Your task to perform on an android device: Go to calendar. Show me events next week Image 0: 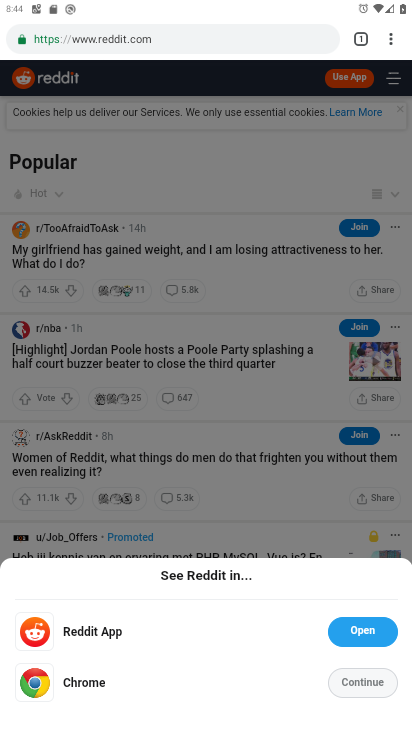
Step 0: press home button
Your task to perform on an android device: Go to calendar. Show me events next week Image 1: 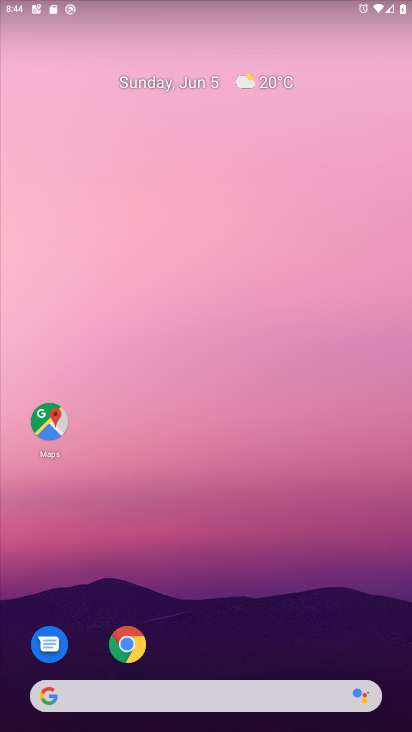
Step 1: drag from (330, 590) to (268, 210)
Your task to perform on an android device: Go to calendar. Show me events next week Image 2: 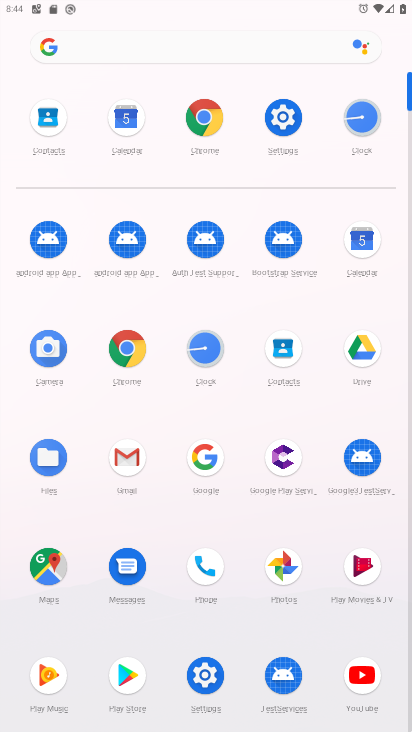
Step 2: click (372, 241)
Your task to perform on an android device: Go to calendar. Show me events next week Image 3: 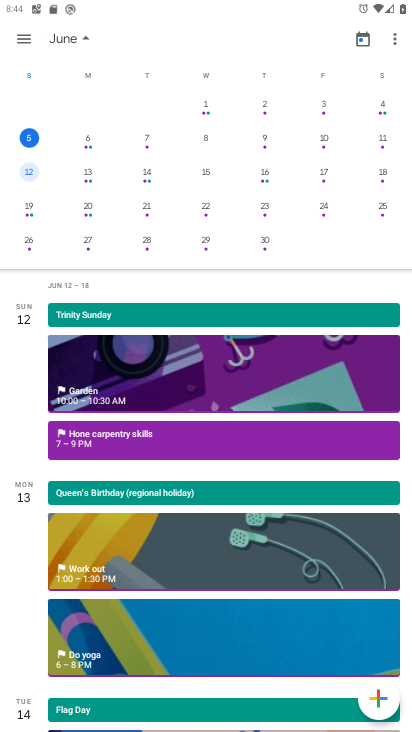
Step 3: click (31, 168)
Your task to perform on an android device: Go to calendar. Show me events next week Image 4: 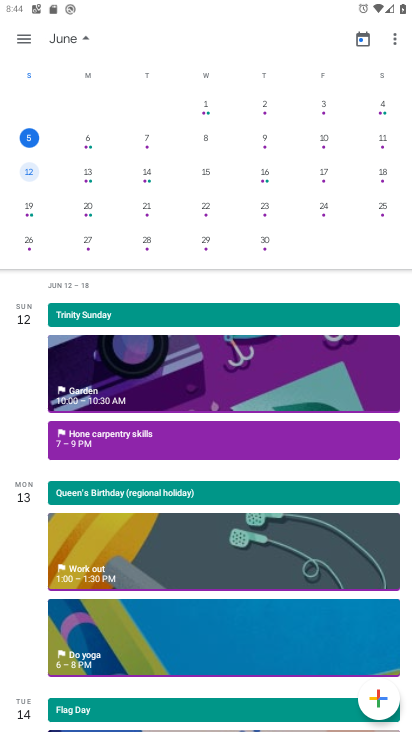
Step 4: click (27, 180)
Your task to perform on an android device: Go to calendar. Show me events next week Image 5: 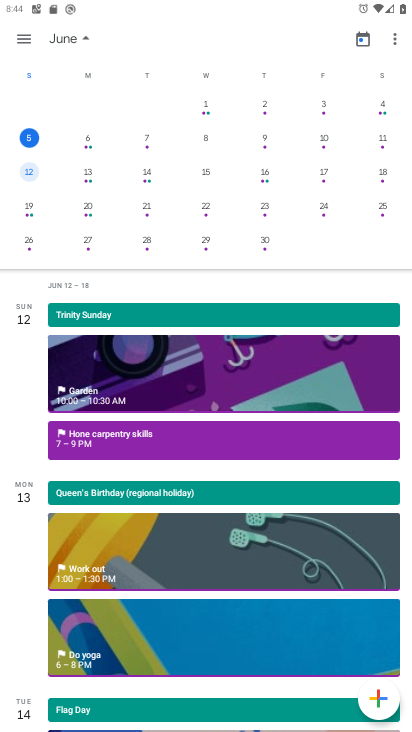
Step 5: task complete